Your task to perform on an android device: Open network settings Image 0: 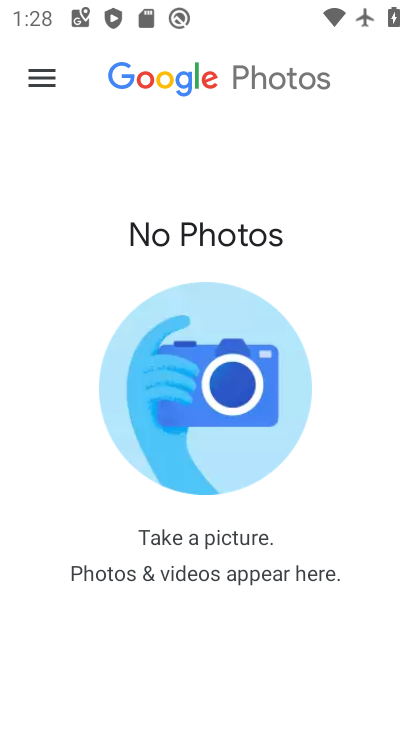
Step 0: press home button
Your task to perform on an android device: Open network settings Image 1: 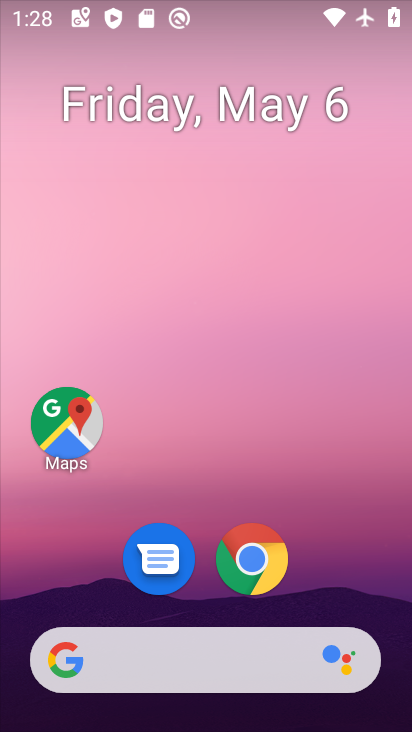
Step 1: drag from (183, 673) to (333, 64)
Your task to perform on an android device: Open network settings Image 2: 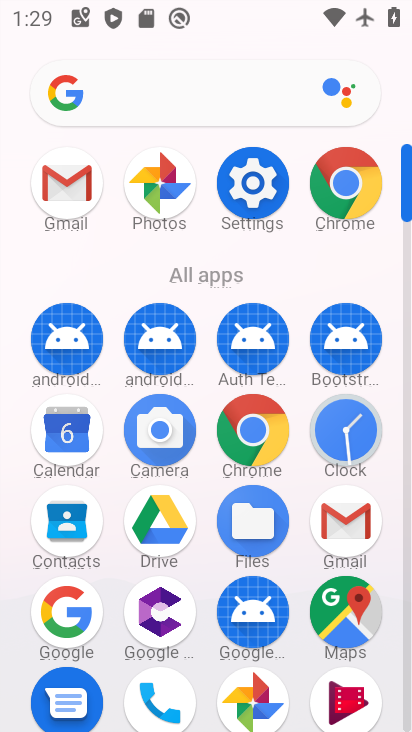
Step 2: click (248, 175)
Your task to perform on an android device: Open network settings Image 3: 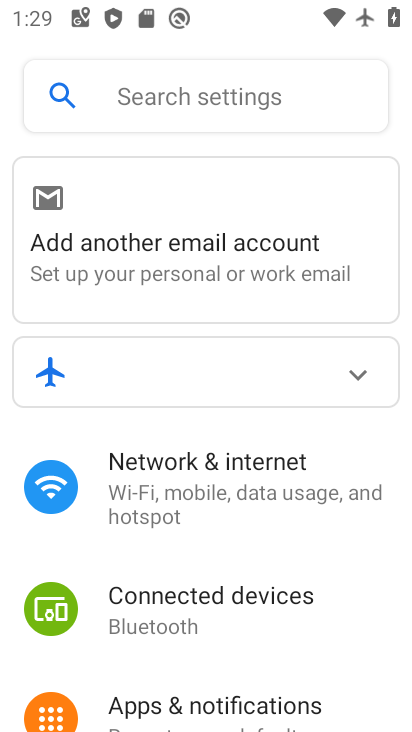
Step 3: click (200, 480)
Your task to perform on an android device: Open network settings Image 4: 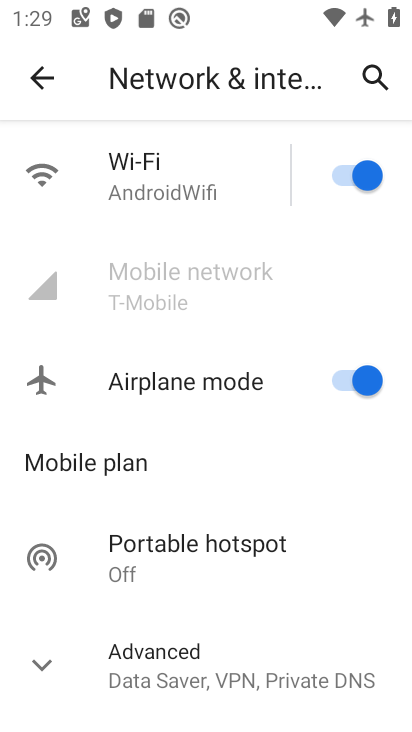
Step 4: task complete